Your task to perform on an android device: Show me the alarms in the clock app Image 0: 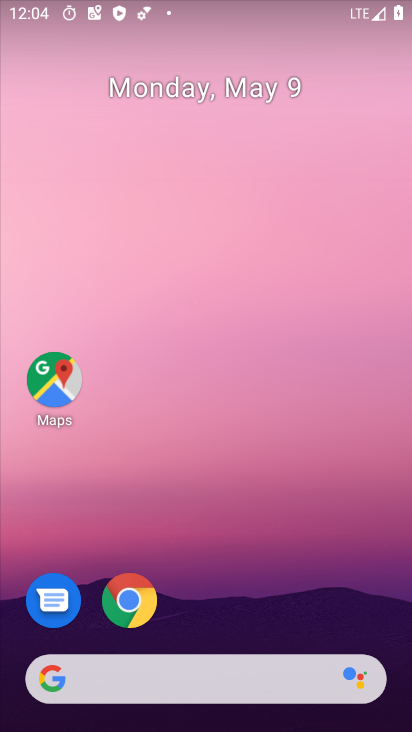
Step 0: drag from (258, 599) to (199, 263)
Your task to perform on an android device: Show me the alarms in the clock app Image 1: 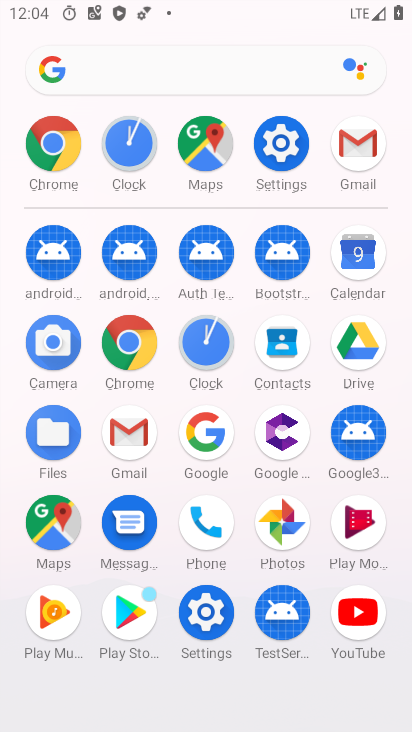
Step 1: click (216, 358)
Your task to perform on an android device: Show me the alarms in the clock app Image 2: 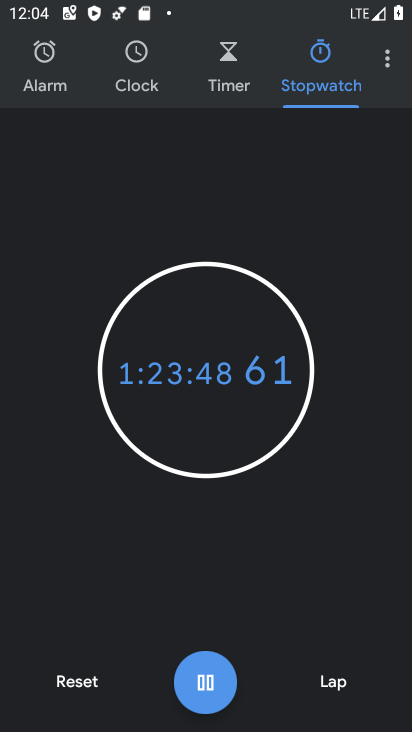
Step 2: click (46, 93)
Your task to perform on an android device: Show me the alarms in the clock app Image 3: 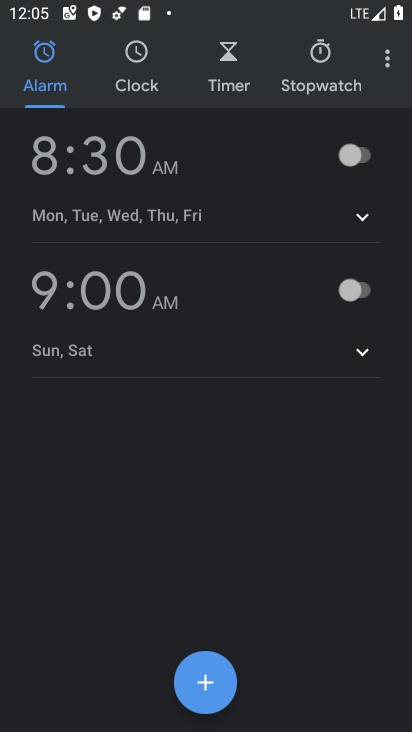
Step 3: task complete